Your task to perform on an android device: Search for Italian restaurants on Maps Image 0: 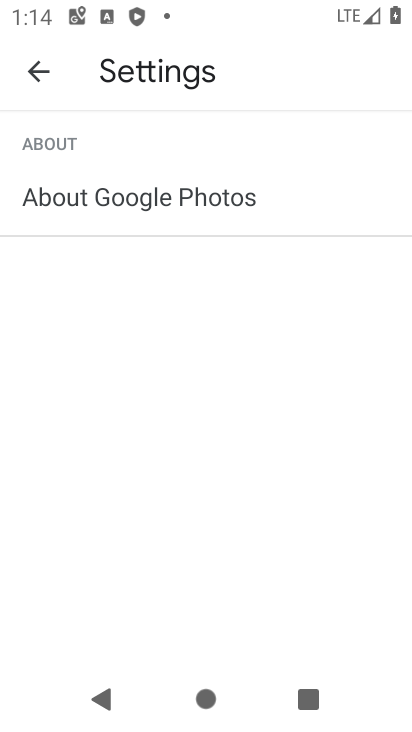
Step 0: press home button
Your task to perform on an android device: Search for Italian restaurants on Maps Image 1: 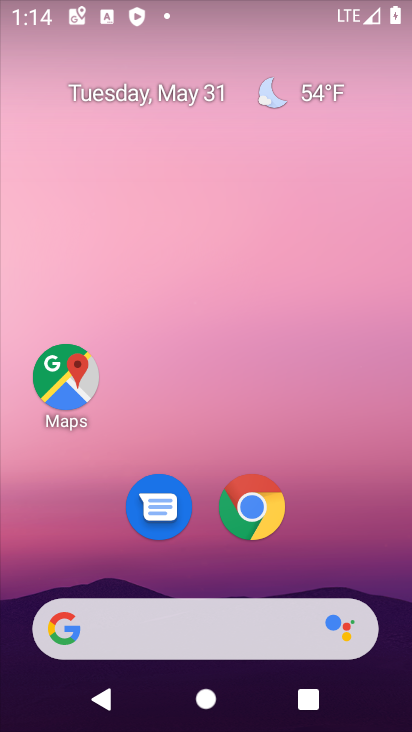
Step 1: drag from (384, 654) to (297, 56)
Your task to perform on an android device: Search for Italian restaurants on Maps Image 2: 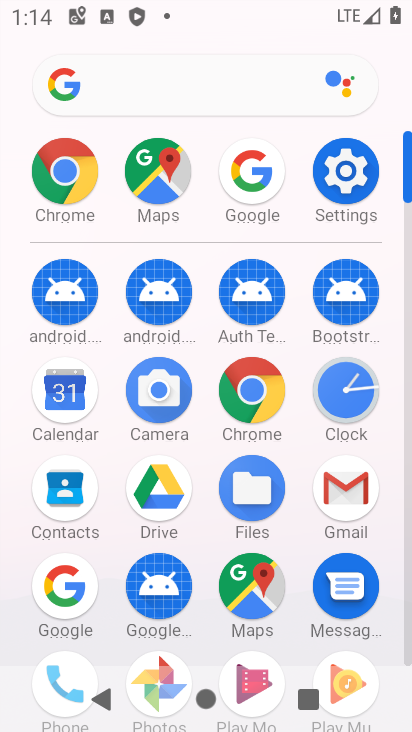
Step 2: click (158, 158)
Your task to perform on an android device: Search for Italian restaurants on Maps Image 3: 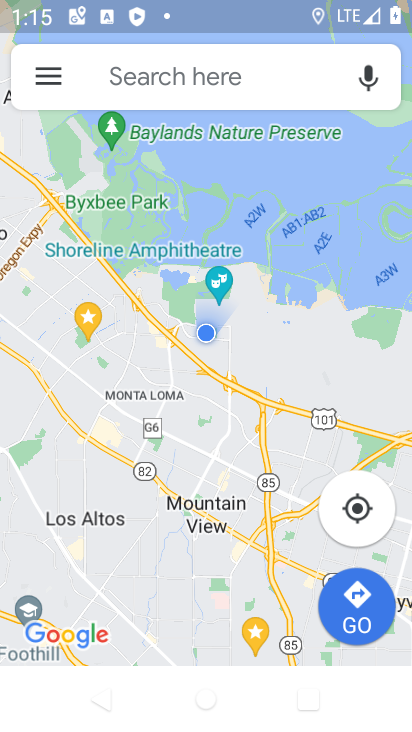
Step 3: click (177, 97)
Your task to perform on an android device: Search for Italian restaurants on Maps Image 4: 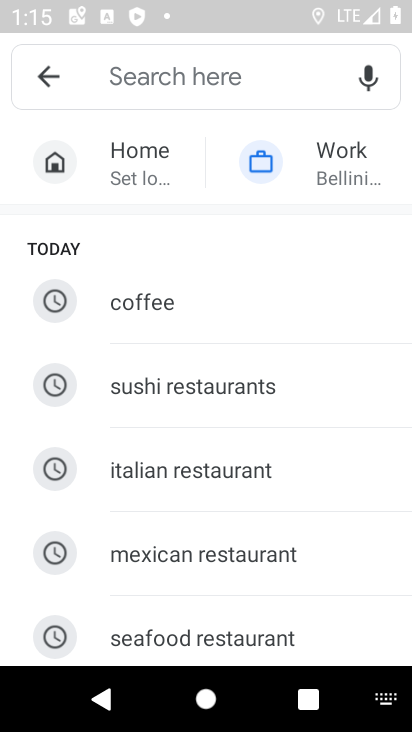
Step 4: click (238, 490)
Your task to perform on an android device: Search for Italian restaurants on Maps Image 5: 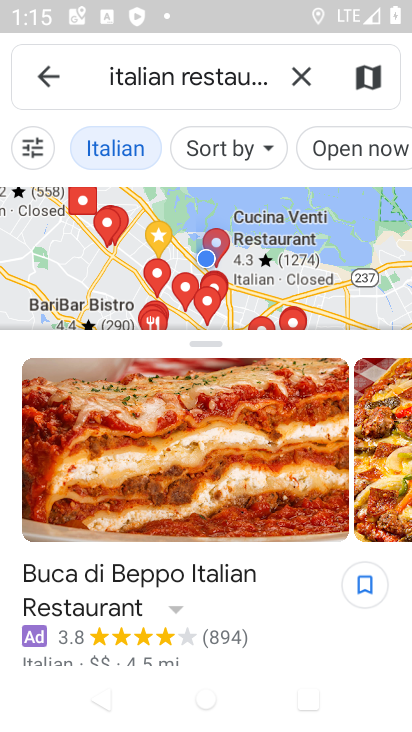
Step 5: task complete